Your task to perform on an android device: Search for pizza restaurants on Maps Image 0: 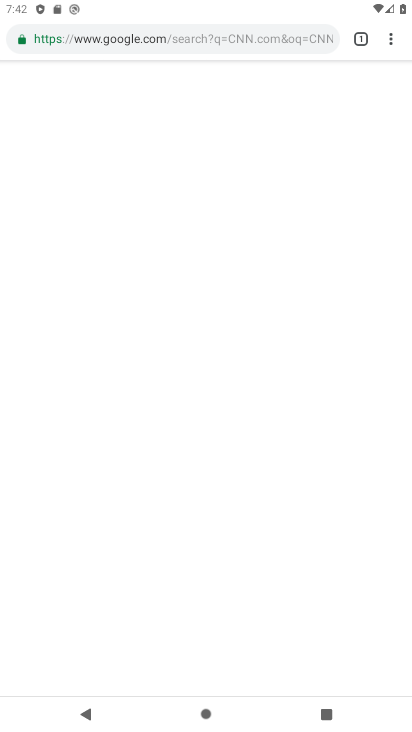
Step 0: press back button
Your task to perform on an android device: Search for pizza restaurants on Maps Image 1: 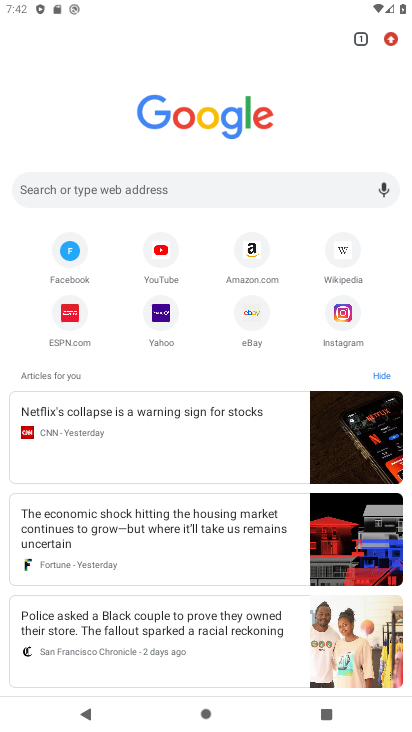
Step 1: press home button
Your task to perform on an android device: Search for pizza restaurants on Maps Image 2: 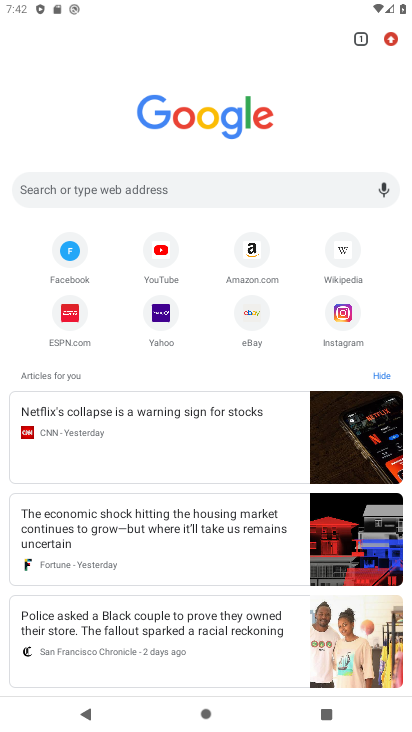
Step 2: click (221, 365)
Your task to perform on an android device: Search for pizza restaurants on Maps Image 3: 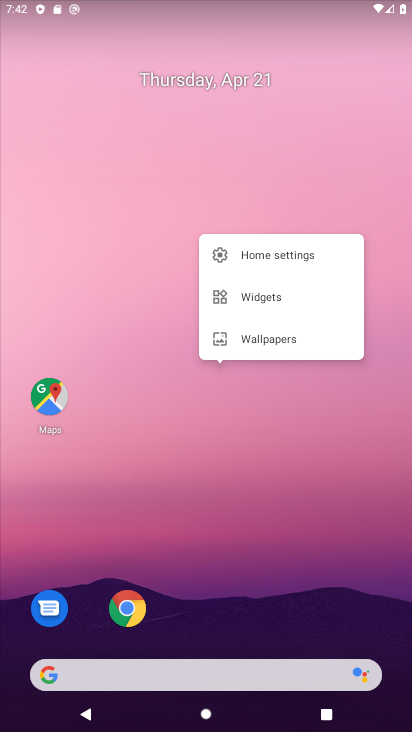
Step 3: click (56, 408)
Your task to perform on an android device: Search for pizza restaurants on Maps Image 4: 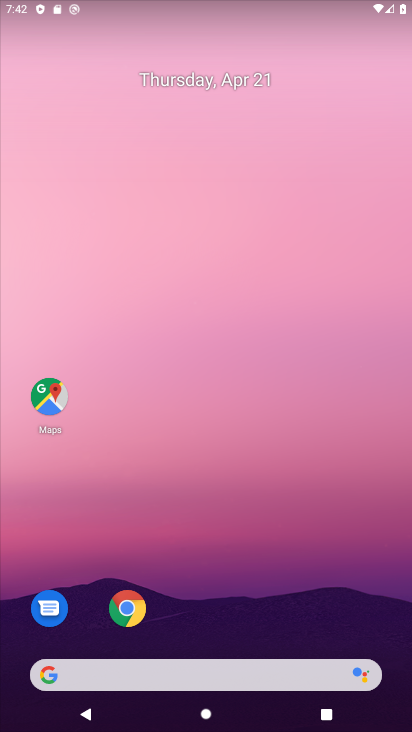
Step 4: click (60, 407)
Your task to perform on an android device: Search for pizza restaurants on Maps Image 5: 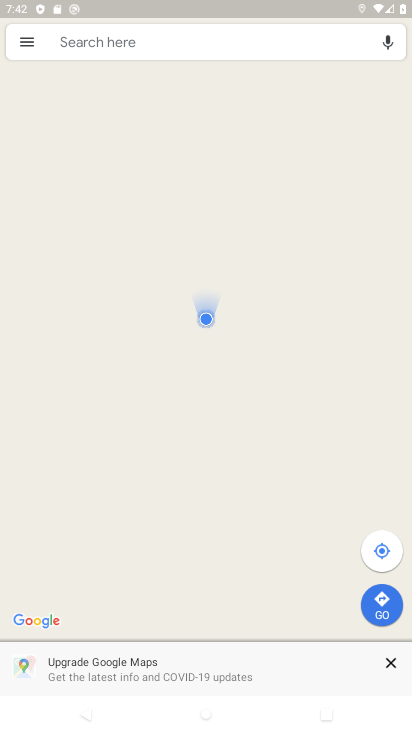
Step 5: click (140, 46)
Your task to perform on an android device: Search for pizza restaurants on Maps Image 6: 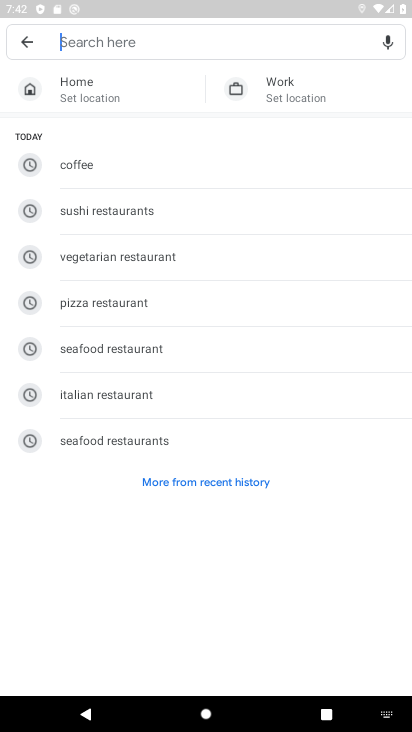
Step 6: click (134, 297)
Your task to perform on an android device: Search for pizza restaurants on Maps Image 7: 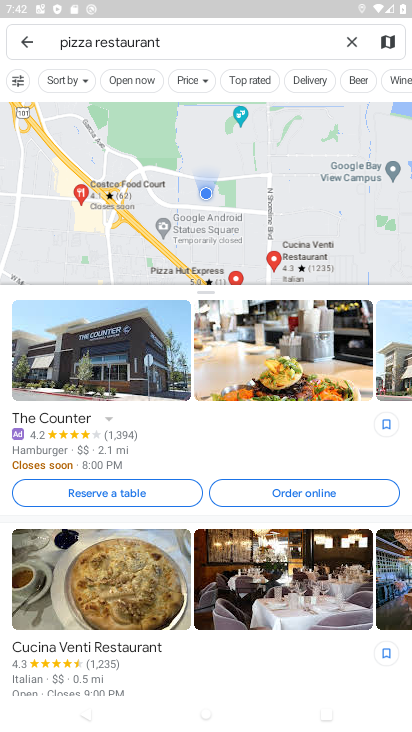
Step 7: task complete